Your task to perform on an android device: What's on my calendar tomorrow? Image 0: 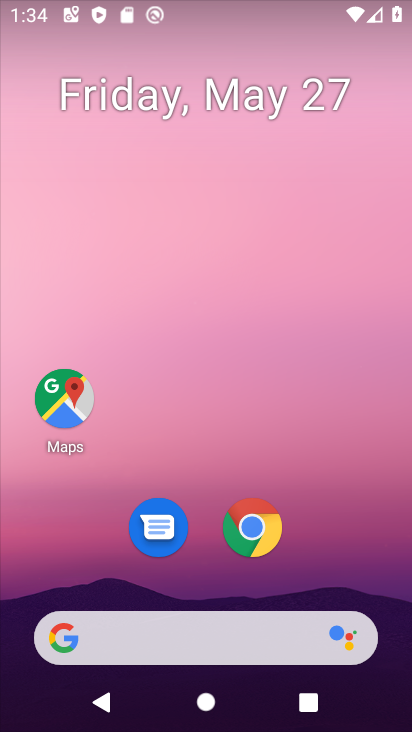
Step 0: drag from (232, 330) to (256, 183)
Your task to perform on an android device: What's on my calendar tomorrow? Image 1: 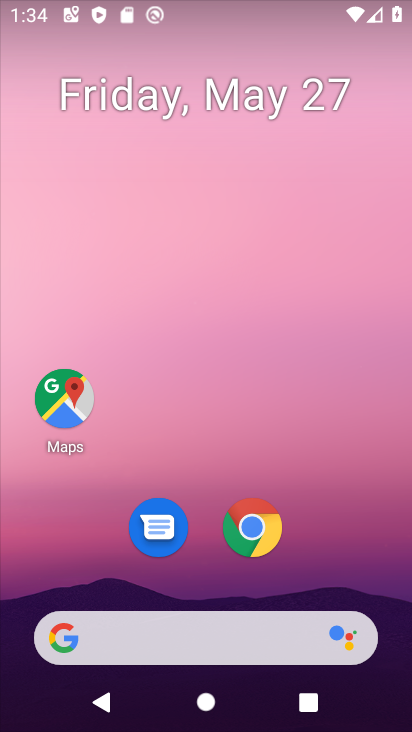
Step 1: drag from (212, 554) to (287, 115)
Your task to perform on an android device: What's on my calendar tomorrow? Image 2: 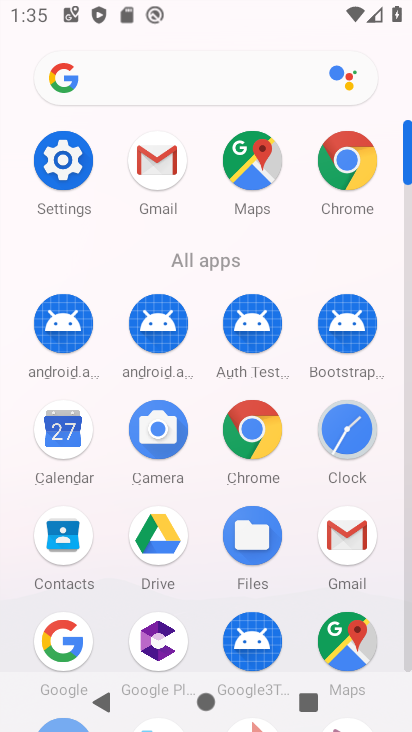
Step 2: click (63, 434)
Your task to perform on an android device: What's on my calendar tomorrow? Image 3: 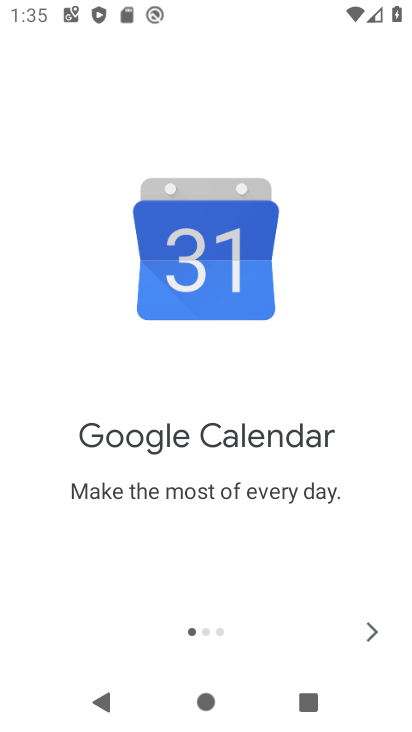
Step 3: click (369, 630)
Your task to perform on an android device: What's on my calendar tomorrow? Image 4: 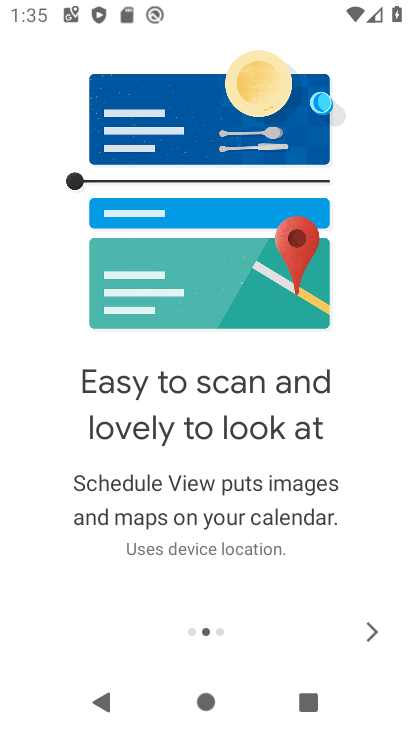
Step 4: click (369, 630)
Your task to perform on an android device: What's on my calendar tomorrow? Image 5: 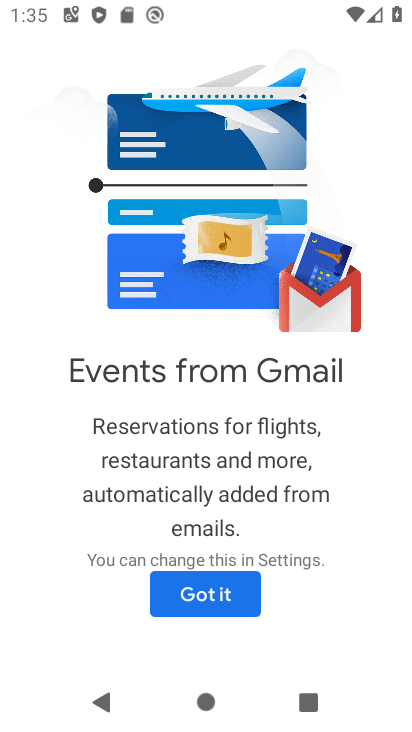
Step 5: click (224, 605)
Your task to perform on an android device: What's on my calendar tomorrow? Image 6: 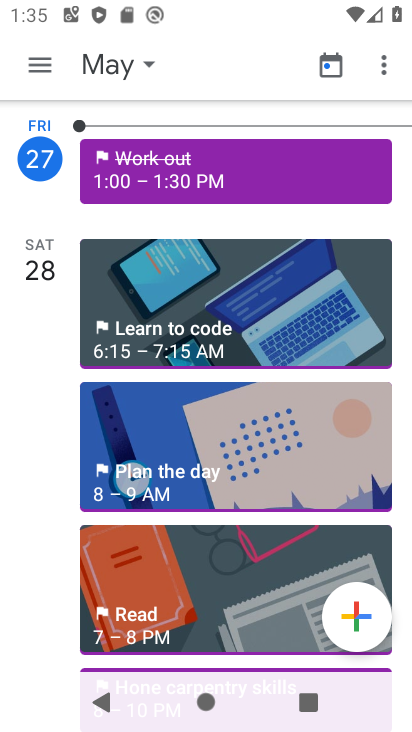
Step 6: click (134, 74)
Your task to perform on an android device: What's on my calendar tomorrow? Image 7: 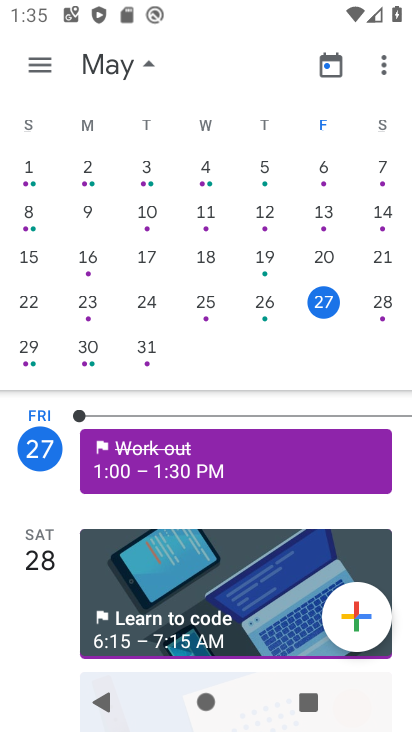
Step 7: click (382, 300)
Your task to perform on an android device: What's on my calendar tomorrow? Image 8: 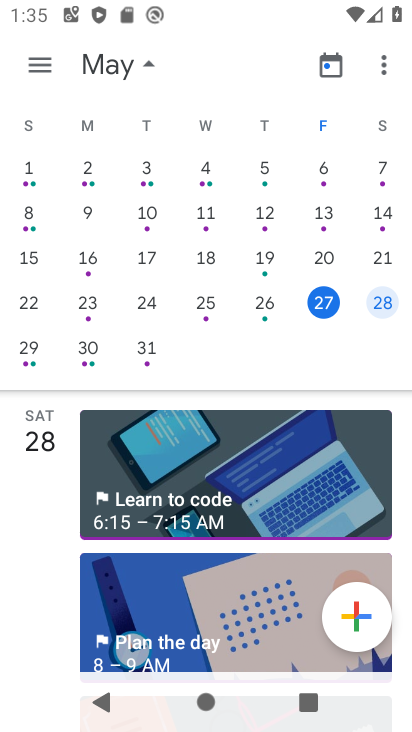
Step 8: task complete